Your task to perform on an android device: Show the shopping cart on newegg.com. Search for usb-a on newegg.com, select the first entry, and add it to the cart. Image 0: 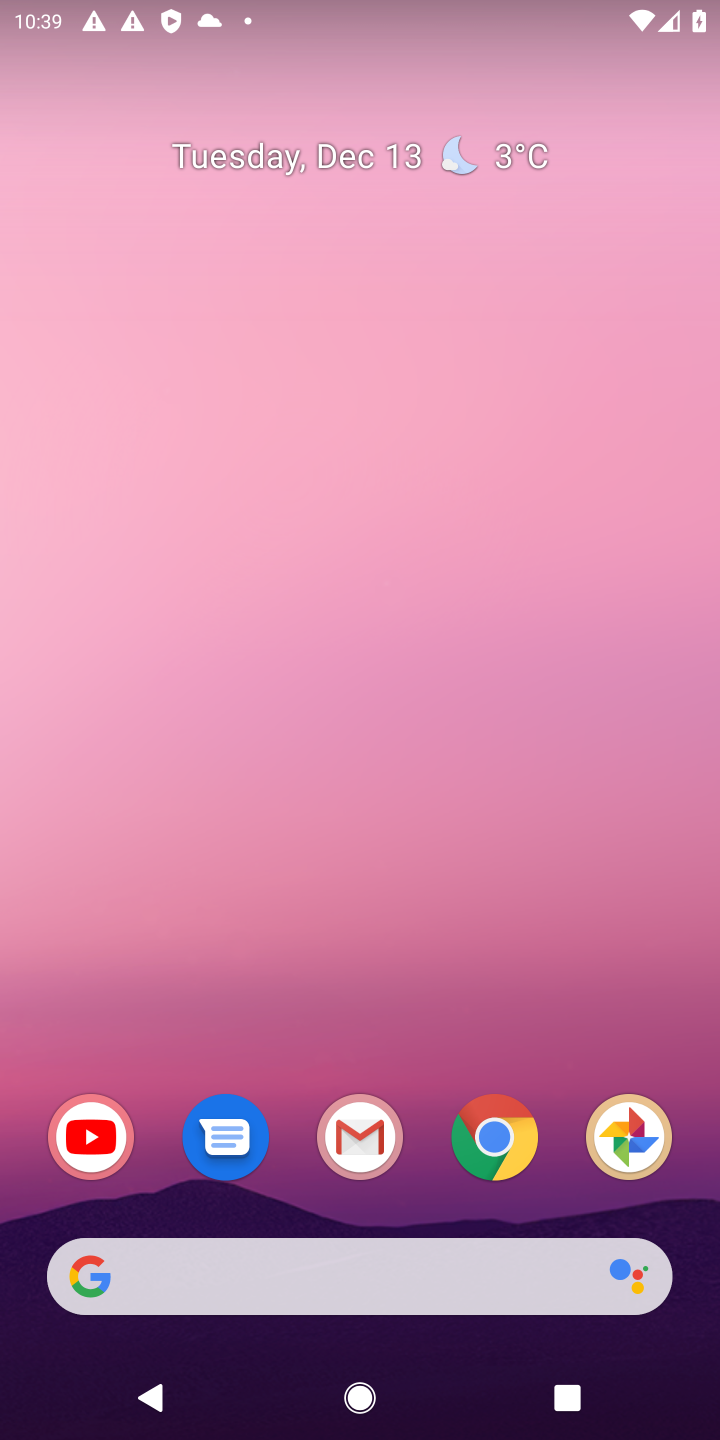
Step 0: click (504, 1118)
Your task to perform on an android device: Show the shopping cart on newegg.com. Search for usb-a on newegg.com, select the first entry, and add it to the cart. Image 1: 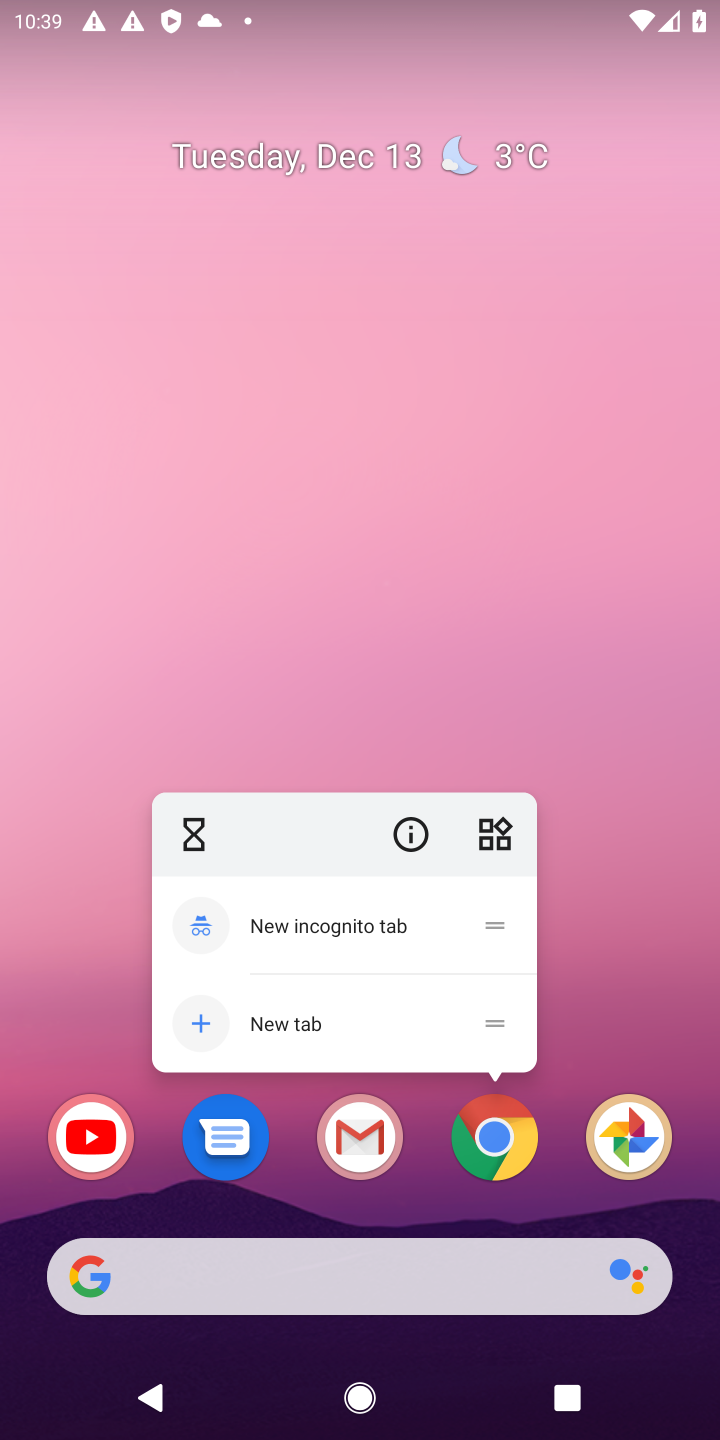
Step 1: click (495, 1145)
Your task to perform on an android device: Show the shopping cart on newegg.com. Search for usb-a on newegg.com, select the first entry, and add it to the cart. Image 2: 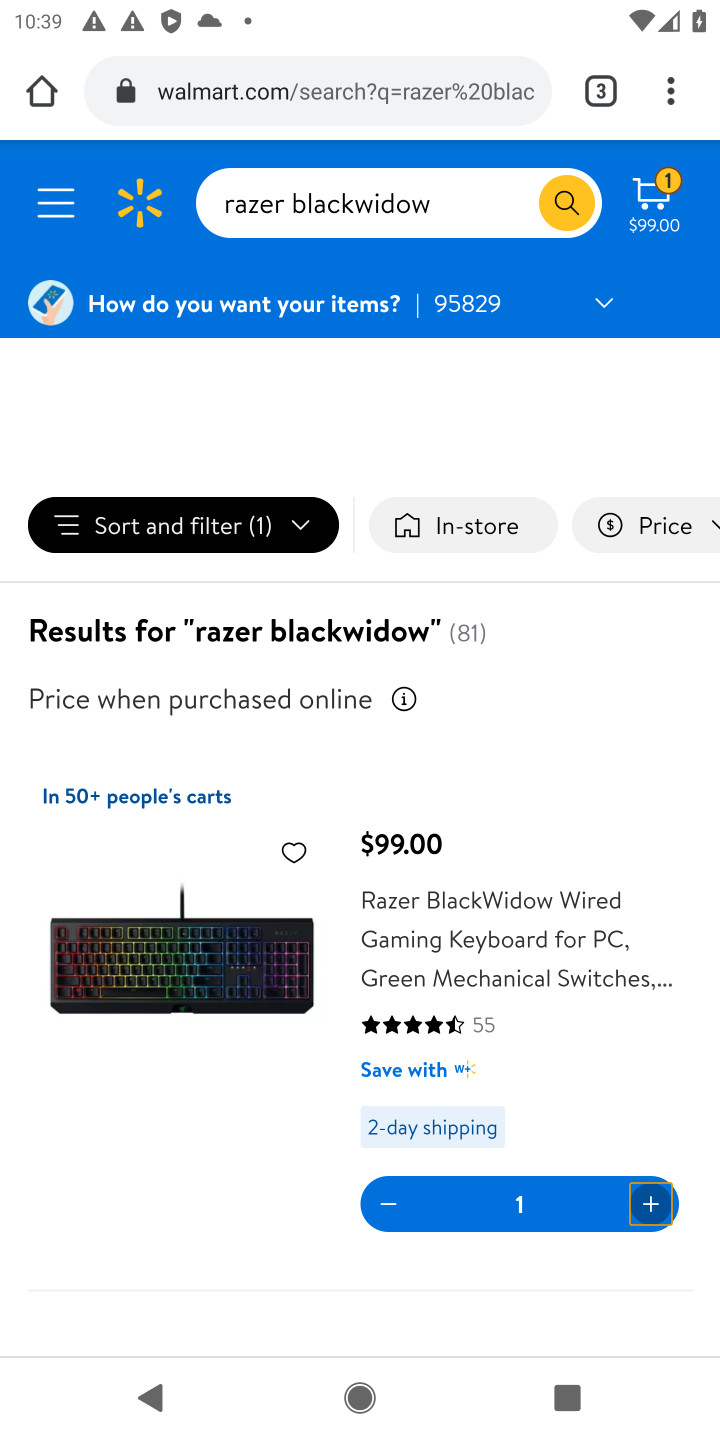
Step 2: click (596, 88)
Your task to perform on an android device: Show the shopping cart on newegg.com. Search for usb-a on newegg.com, select the first entry, and add it to the cart. Image 3: 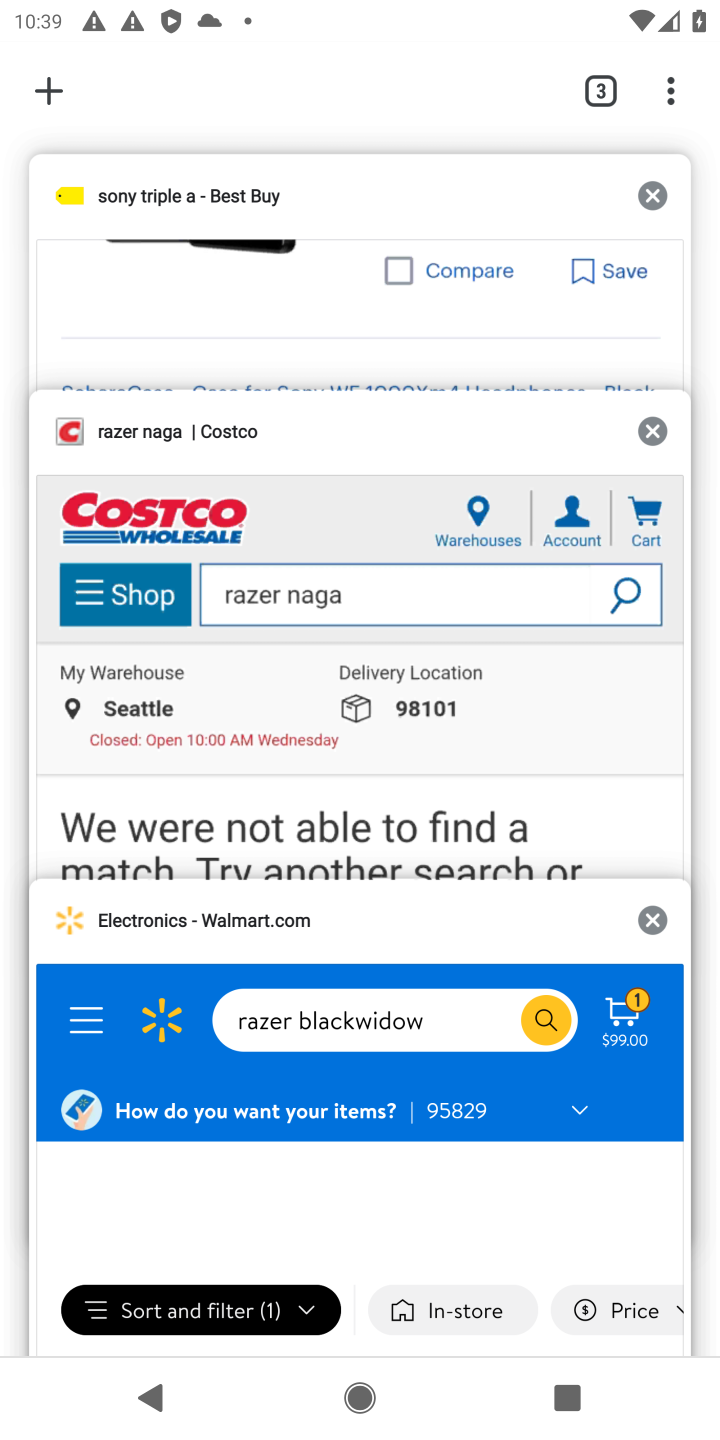
Step 3: click (45, 86)
Your task to perform on an android device: Show the shopping cart on newegg.com. Search for usb-a on newegg.com, select the first entry, and add it to the cart. Image 4: 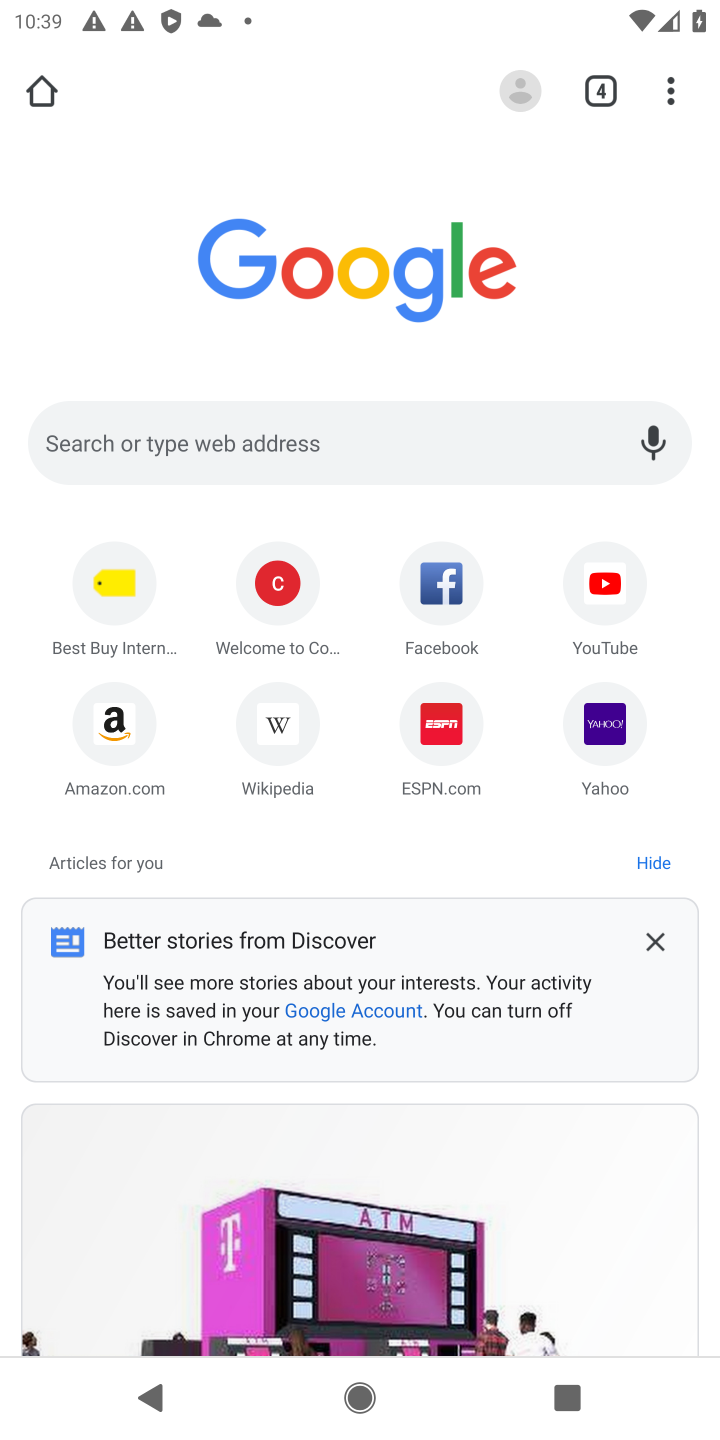
Step 4: click (335, 457)
Your task to perform on an android device: Show the shopping cart on newegg.com. Search for usb-a on newegg.com, select the first entry, and add it to the cart. Image 5: 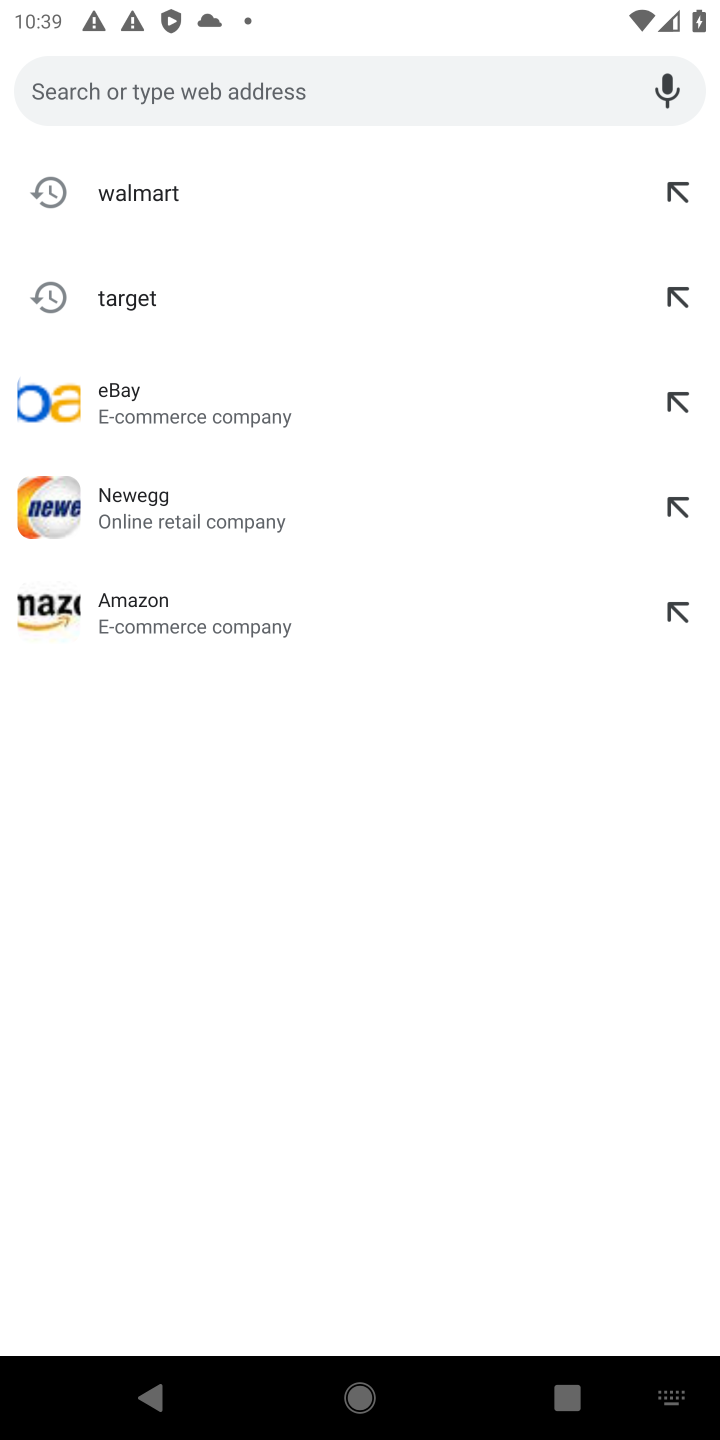
Step 5: click (284, 522)
Your task to perform on an android device: Show the shopping cart on newegg.com. Search for usb-a on newegg.com, select the first entry, and add it to the cart. Image 6: 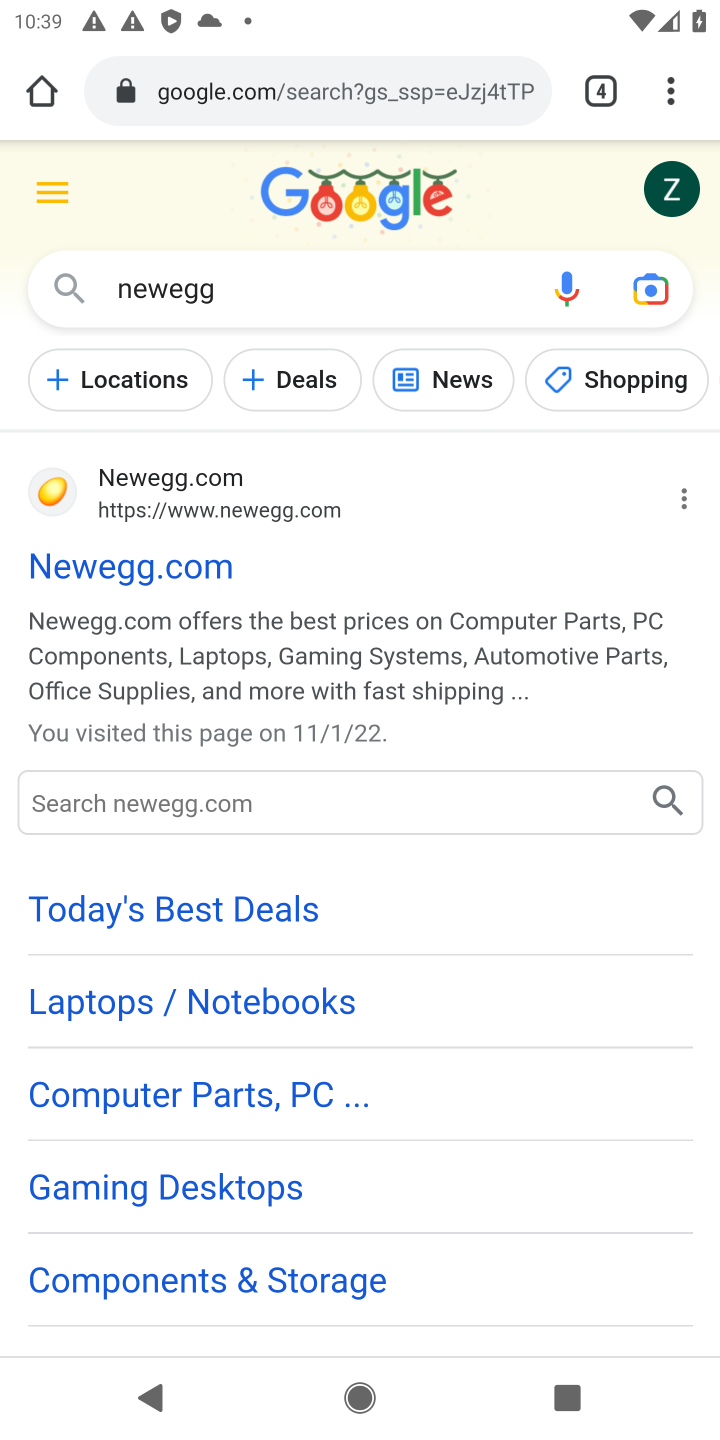
Step 6: click (114, 795)
Your task to perform on an android device: Show the shopping cart on newegg.com. Search for usb-a on newegg.com, select the first entry, and add it to the cart. Image 7: 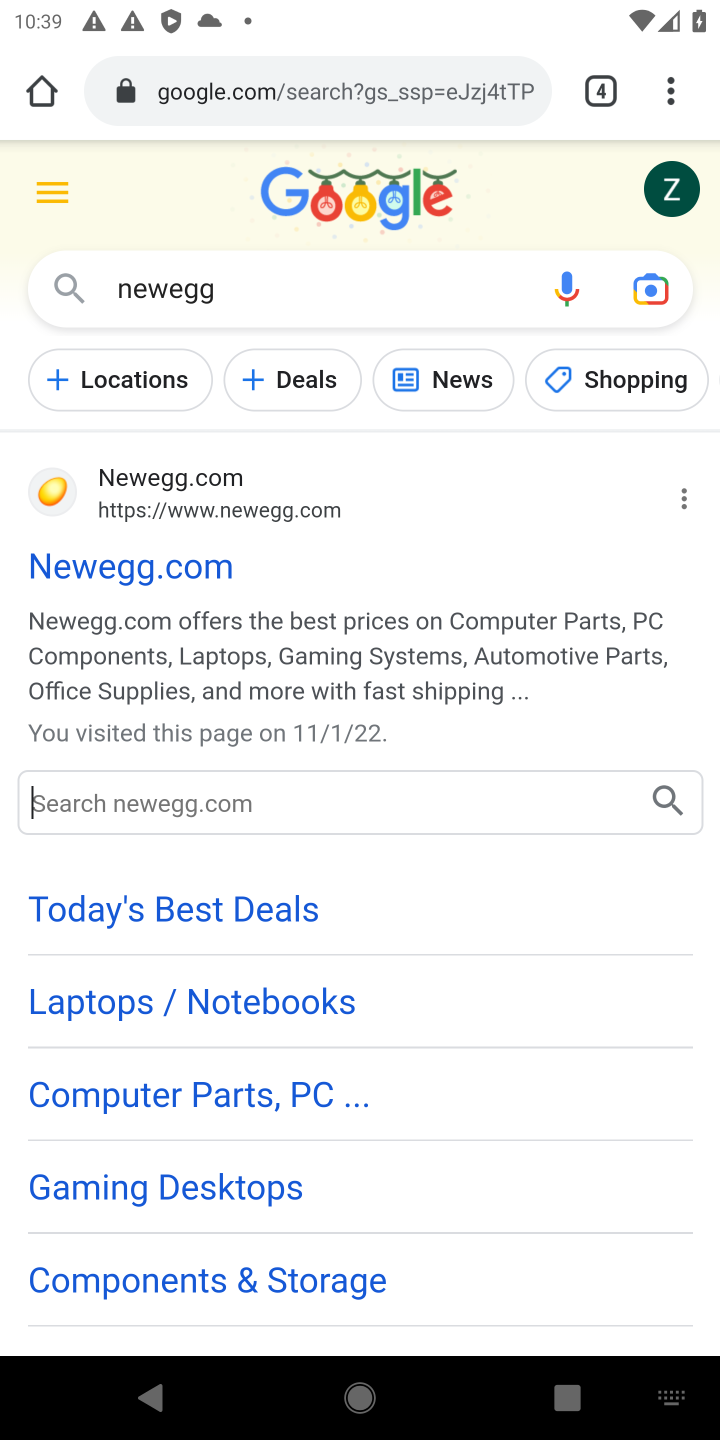
Step 7: type "usb-a"
Your task to perform on an android device: Show the shopping cart on newegg.com. Search for usb-a on newegg.com, select the first entry, and add it to the cart. Image 8: 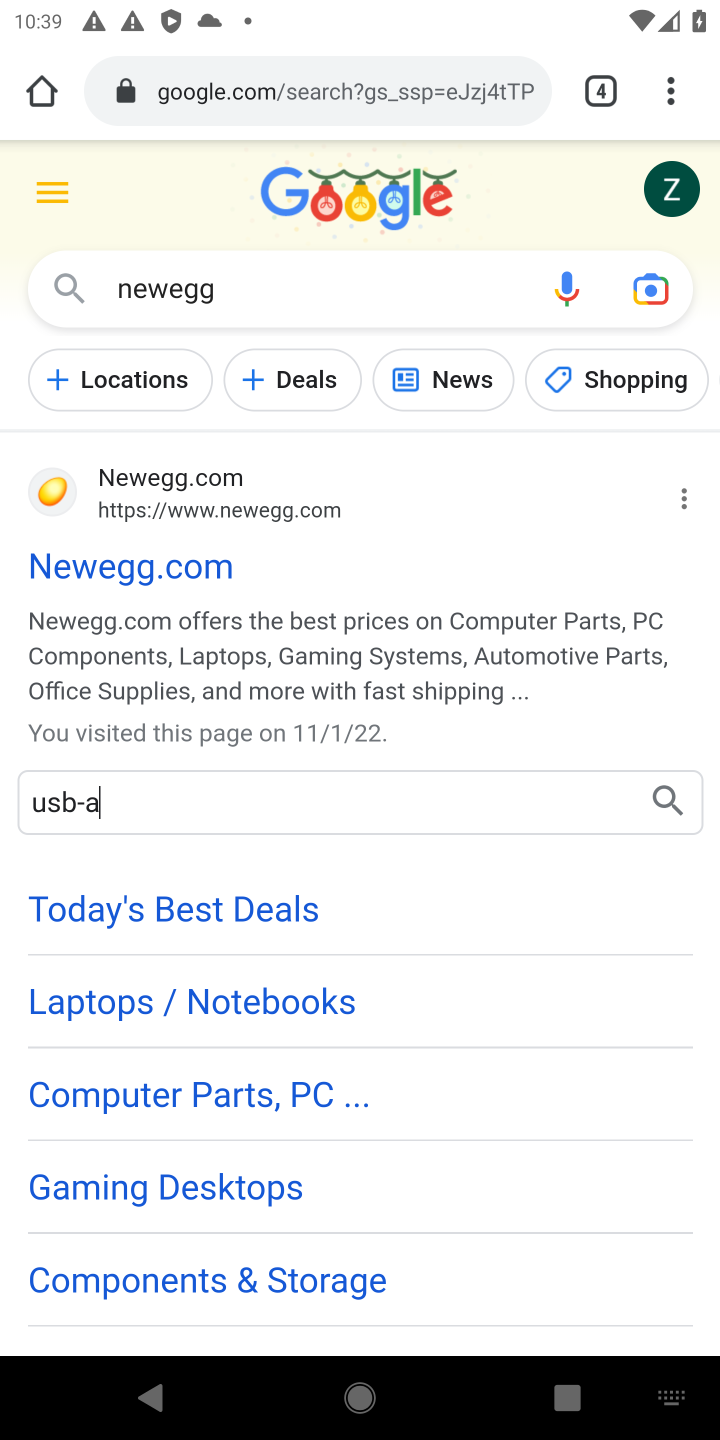
Step 8: press enter
Your task to perform on an android device: Show the shopping cart on newegg.com. Search for usb-a on newegg.com, select the first entry, and add it to the cart. Image 9: 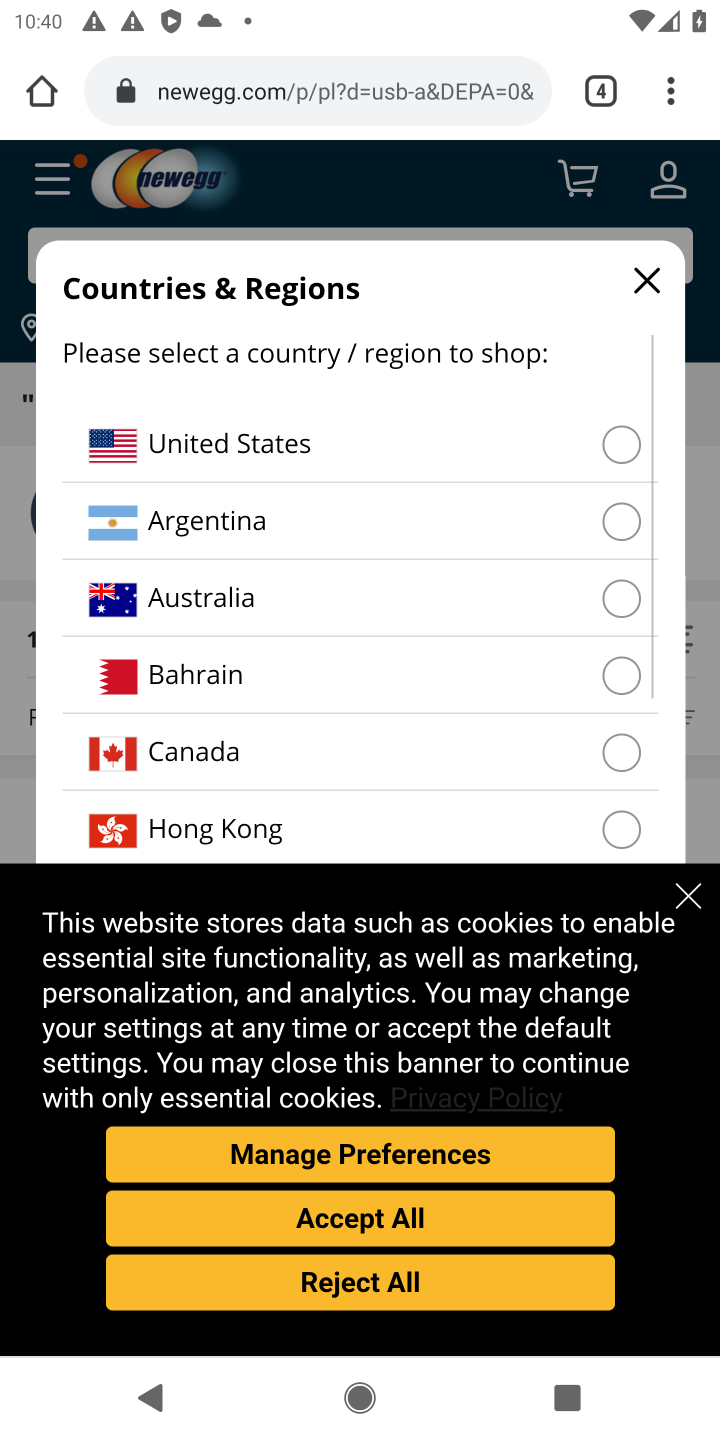
Step 9: click (692, 892)
Your task to perform on an android device: Show the shopping cart on newegg.com. Search for usb-a on newegg.com, select the first entry, and add it to the cart. Image 10: 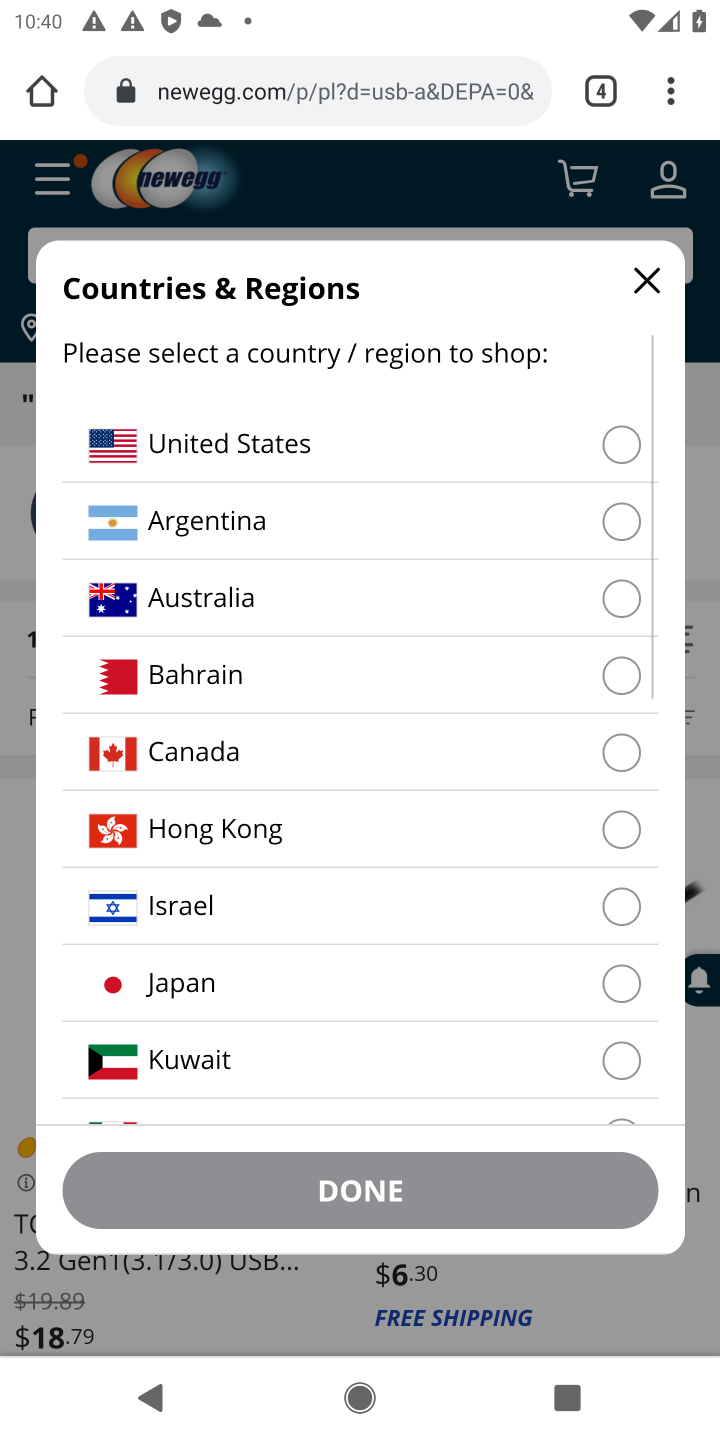
Step 10: click (611, 456)
Your task to perform on an android device: Show the shopping cart on newegg.com. Search for usb-a on newegg.com, select the first entry, and add it to the cart. Image 11: 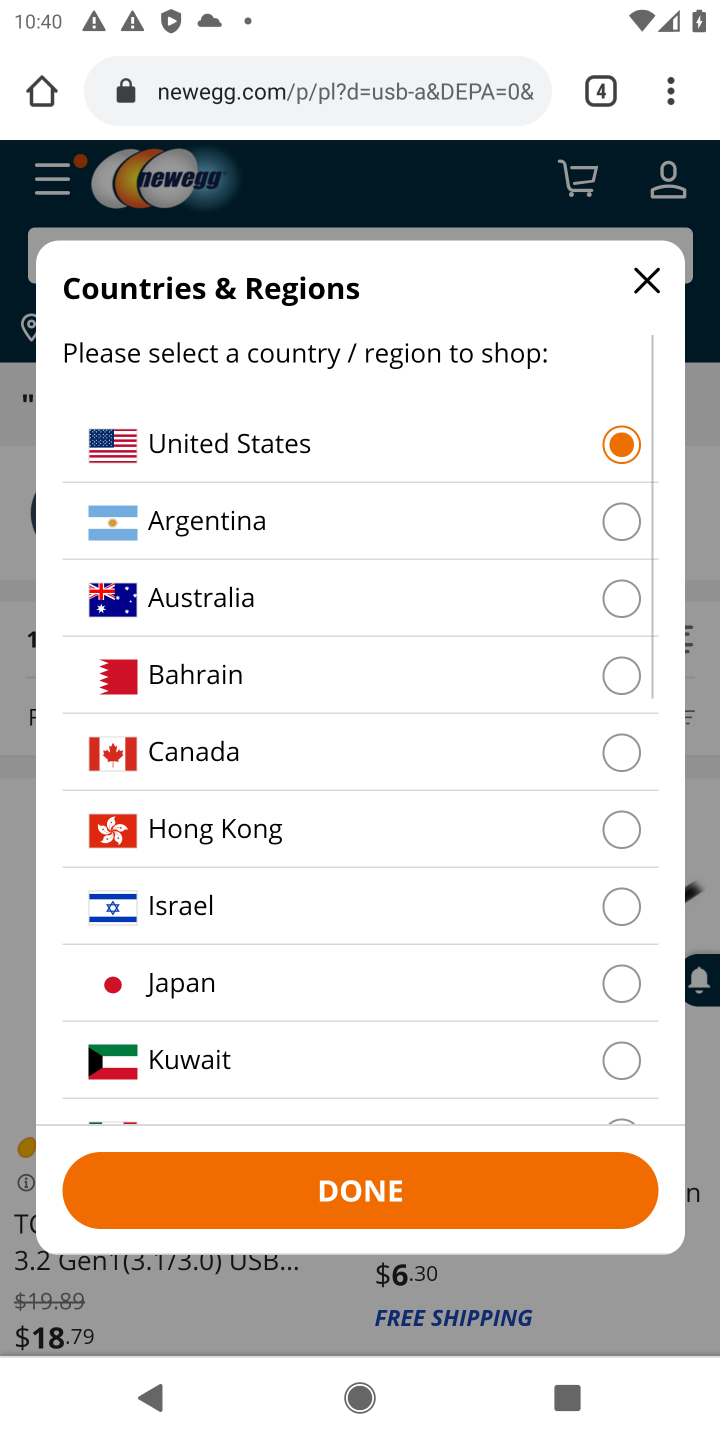
Step 11: click (296, 1190)
Your task to perform on an android device: Show the shopping cart on newegg.com. Search for usb-a on newegg.com, select the first entry, and add it to the cart. Image 12: 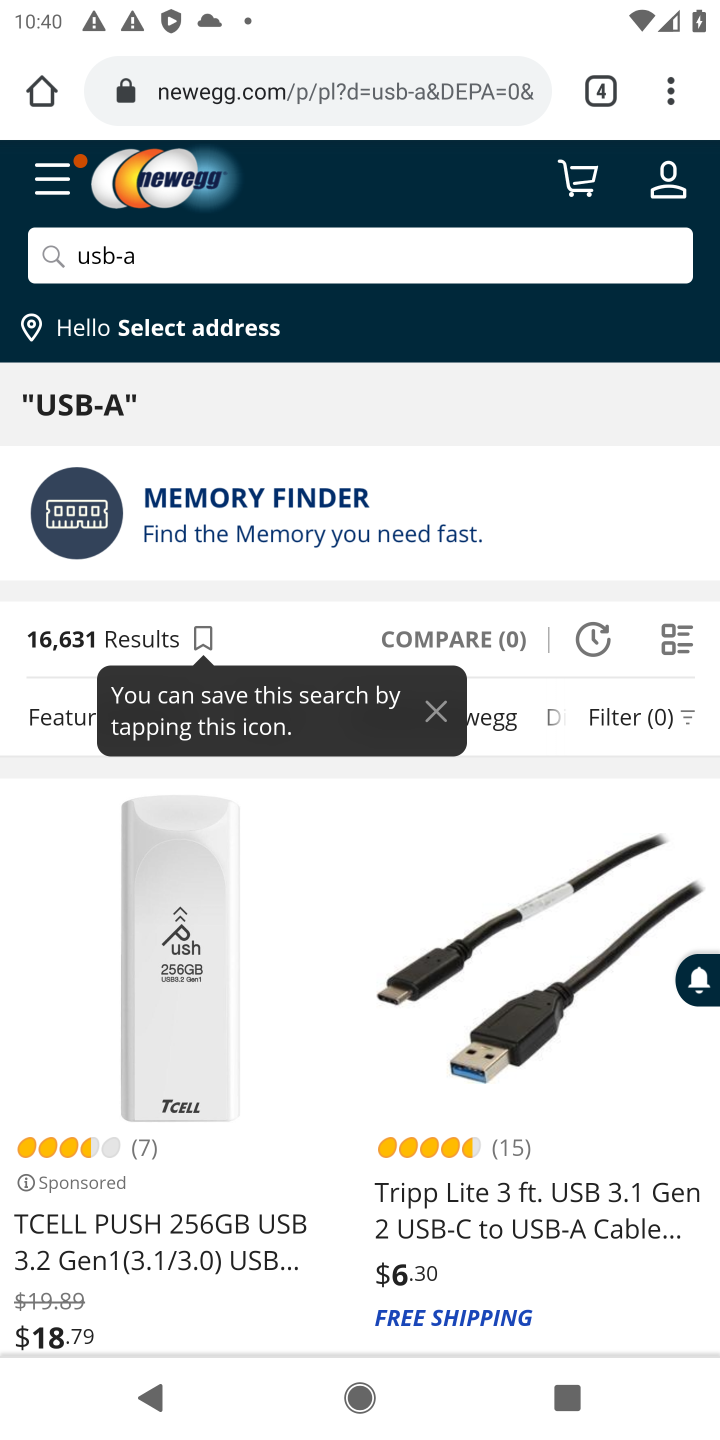
Step 12: click (503, 1192)
Your task to perform on an android device: Show the shopping cart on newegg.com. Search for usb-a on newegg.com, select the first entry, and add it to the cart. Image 13: 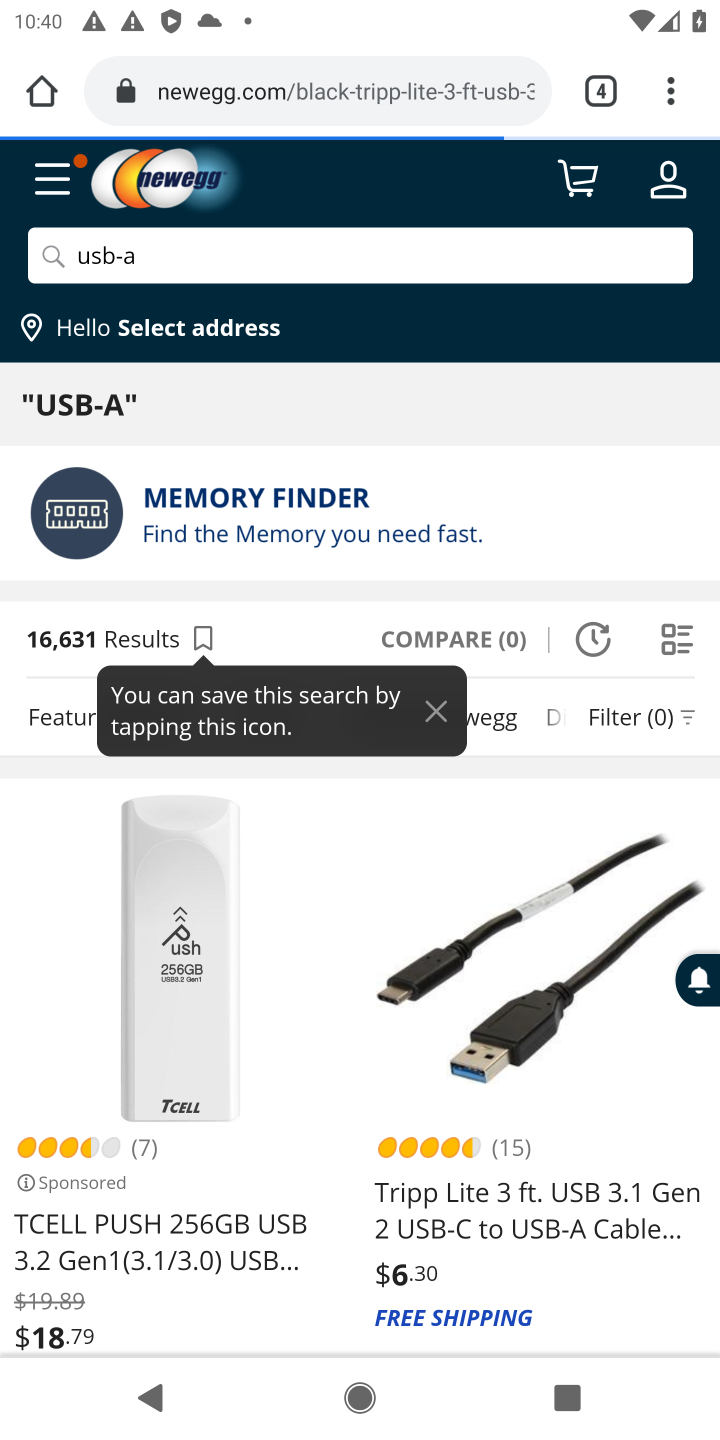
Step 13: click (503, 1192)
Your task to perform on an android device: Show the shopping cart on newegg.com. Search for usb-a on newegg.com, select the first entry, and add it to the cart. Image 14: 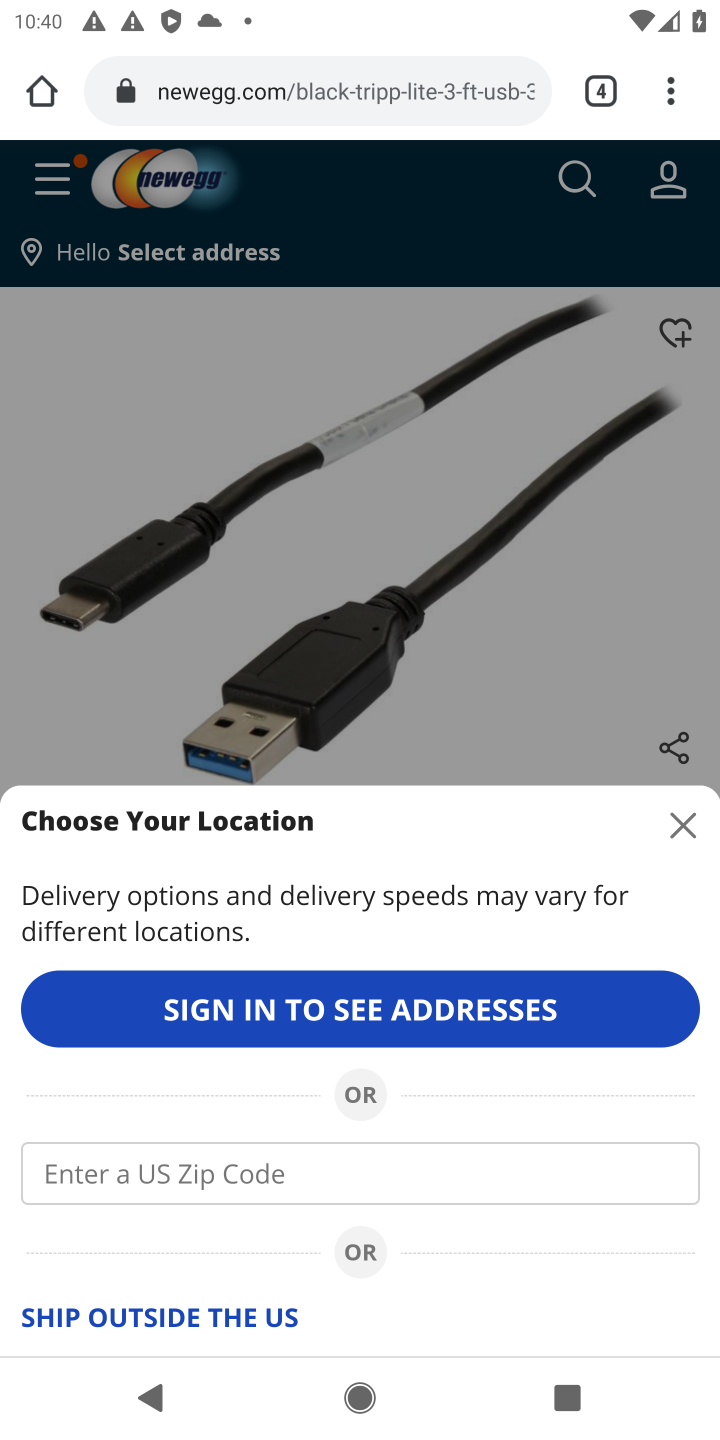
Step 14: click (684, 821)
Your task to perform on an android device: Show the shopping cart on newegg.com. Search for usb-a on newegg.com, select the first entry, and add it to the cart. Image 15: 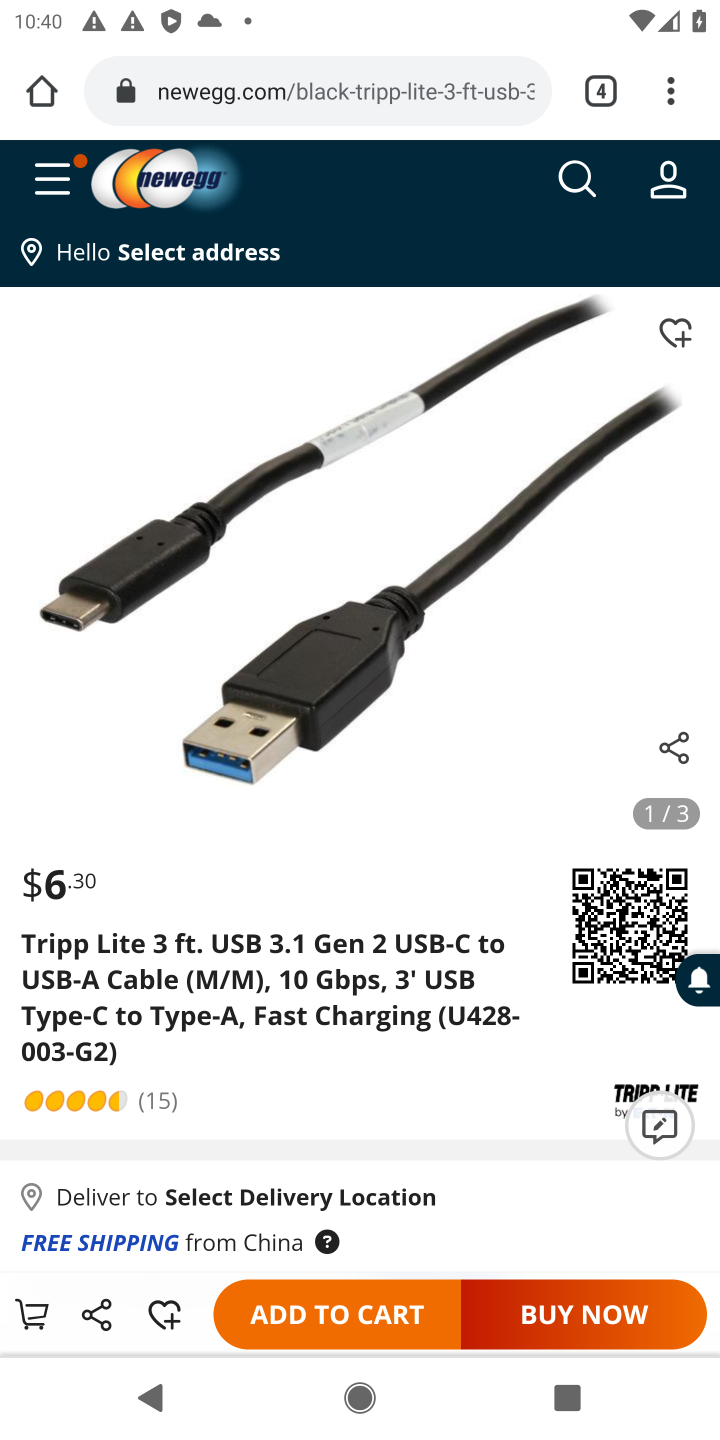
Step 15: click (353, 1309)
Your task to perform on an android device: Show the shopping cart on newegg.com. Search for usb-a on newegg.com, select the first entry, and add it to the cart. Image 16: 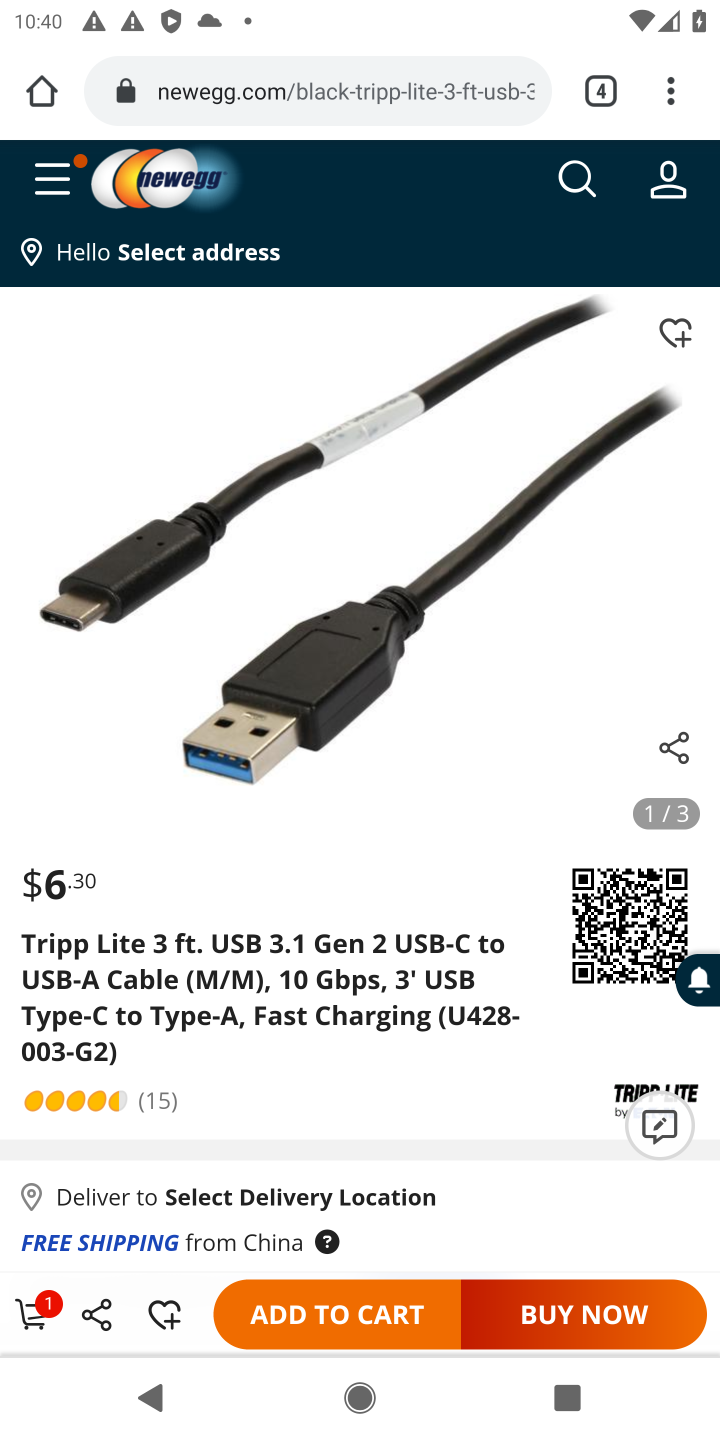
Step 16: task complete